Your task to perform on an android device: Go to Wikipedia Image 0: 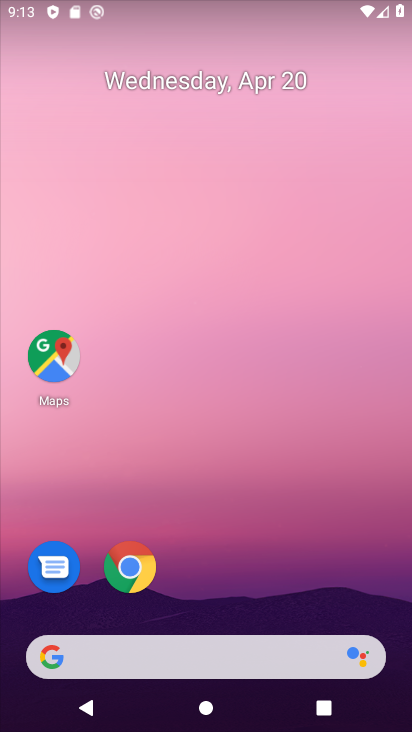
Step 0: click (142, 570)
Your task to perform on an android device: Go to Wikipedia Image 1: 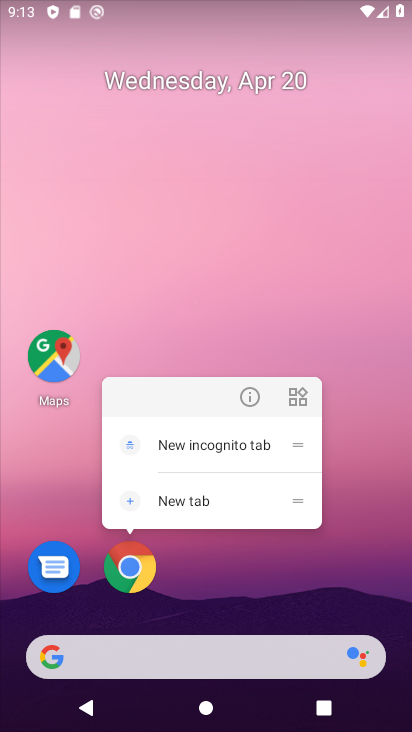
Step 1: click (127, 567)
Your task to perform on an android device: Go to Wikipedia Image 2: 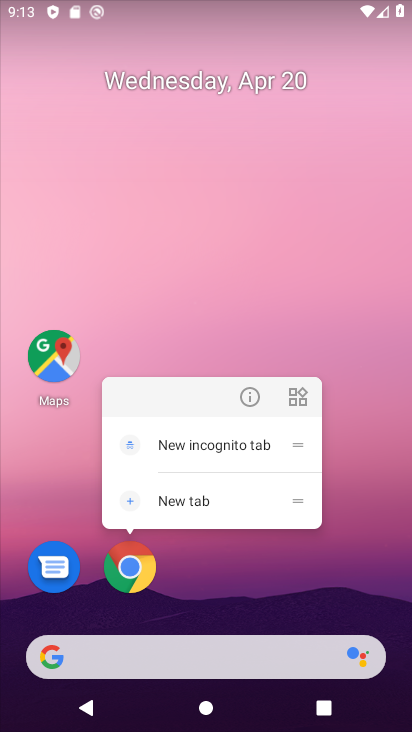
Step 2: click (133, 569)
Your task to perform on an android device: Go to Wikipedia Image 3: 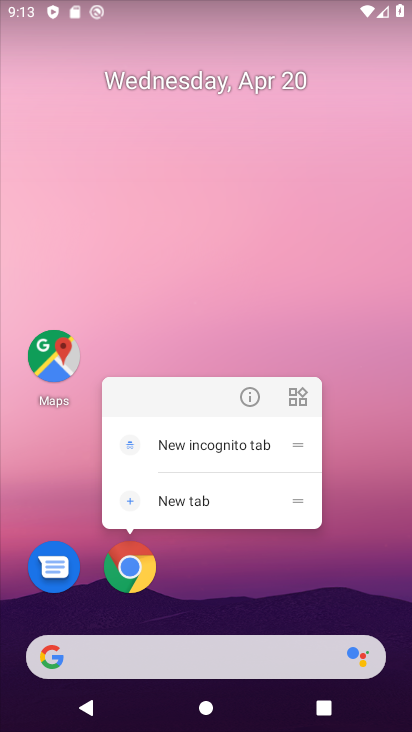
Step 3: click (133, 578)
Your task to perform on an android device: Go to Wikipedia Image 4: 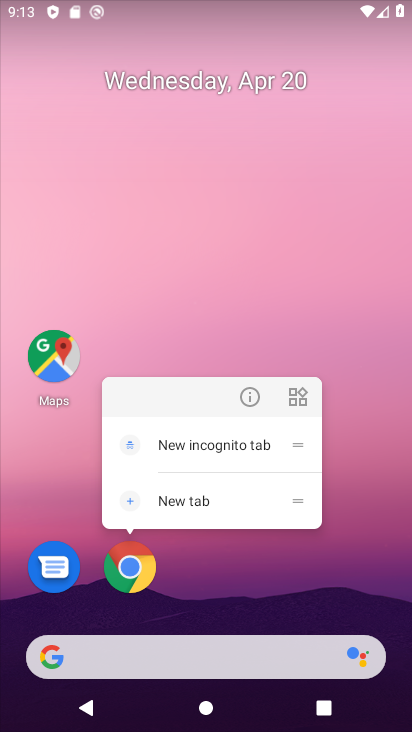
Step 4: click (135, 575)
Your task to perform on an android device: Go to Wikipedia Image 5: 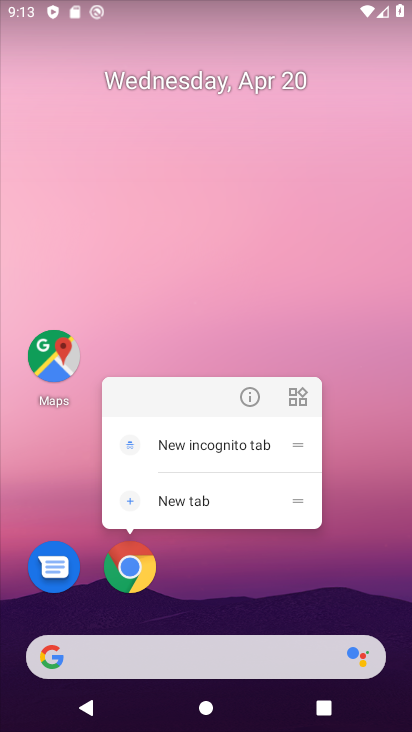
Step 5: click (128, 549)
Your task to perform on an android device: Go to Wikipedia Image 6: 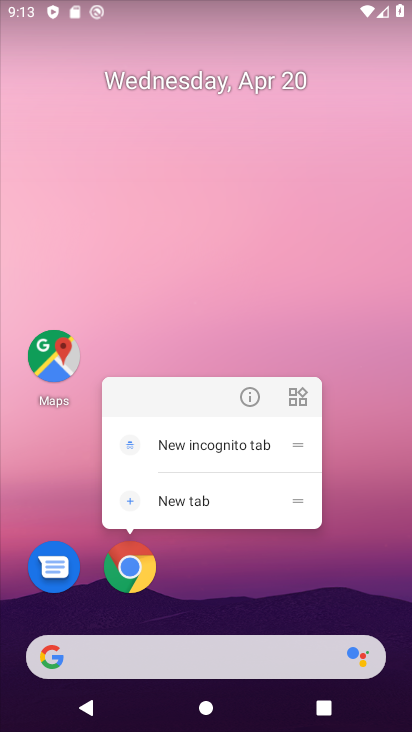
Step 6: click (133, 557)
Your task to perform on an android device: Go to Wikipedia Image 7: 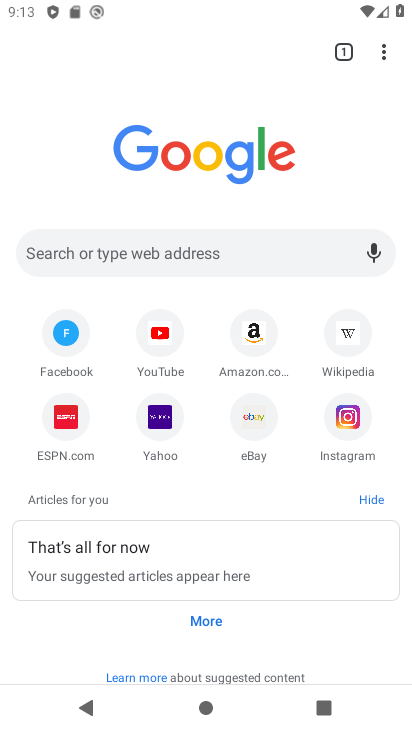
Step 7: click (118, 256)
Your task to perform on an android device: Go to Wikipedia Image 8: 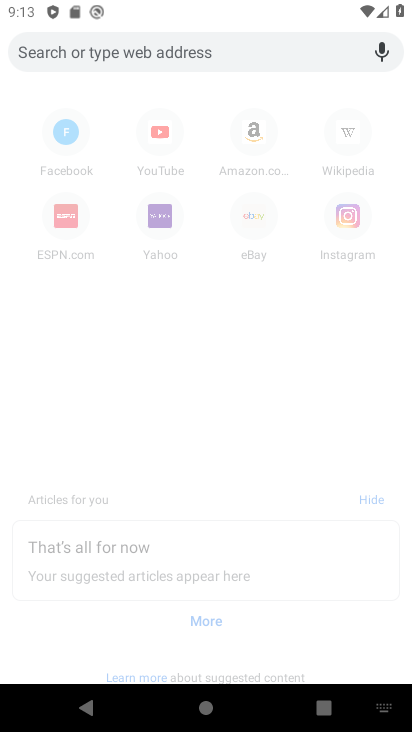
Step 8: click (239, 317)
Your task to perform on an android device: Go to Wikipedia Image 9: 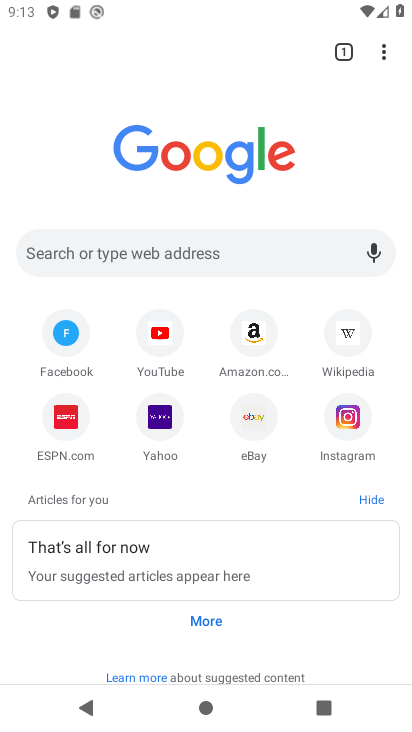
Step 9: click (338, 329)
Your task to perform on an android device: Go to Wikipedia Image 10: 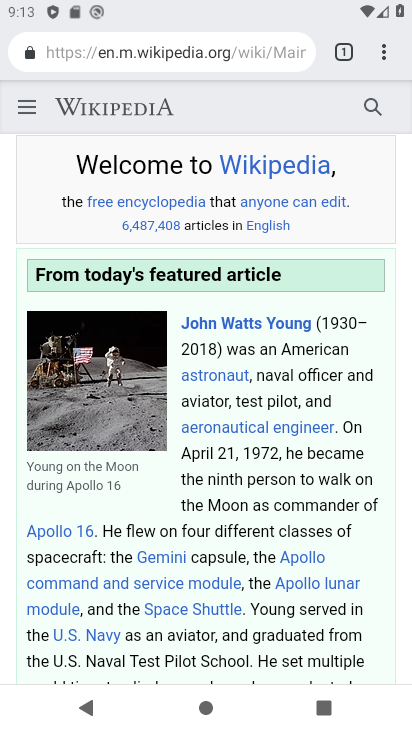
Step 10: task complete